Your task to perform on an android device: add a contact in the contacts app Image 0: 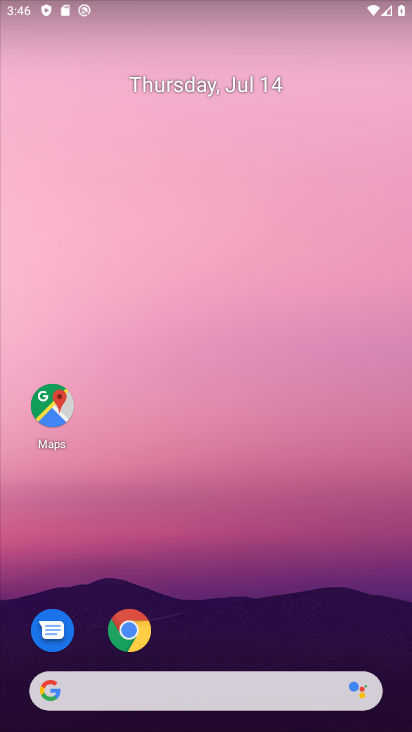
Step 0: drag from (320, 672) to (398, 53)
Your task to perform on an android device: add a contact in the contacts app Image 1: 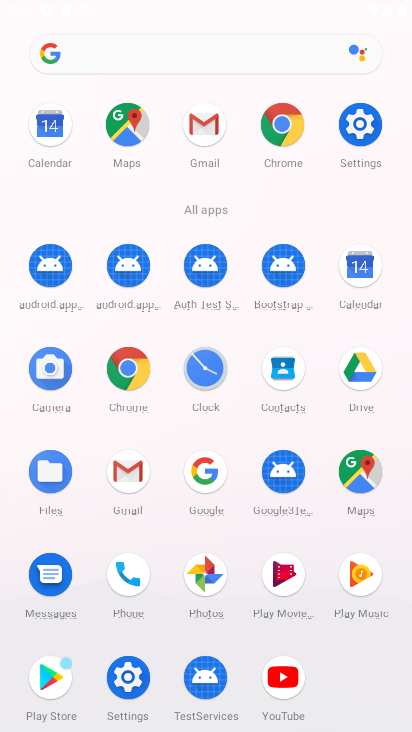
Step 1: click (292, 368)
Your task to perform on an android device: add a contact in the contacts app Image 2: 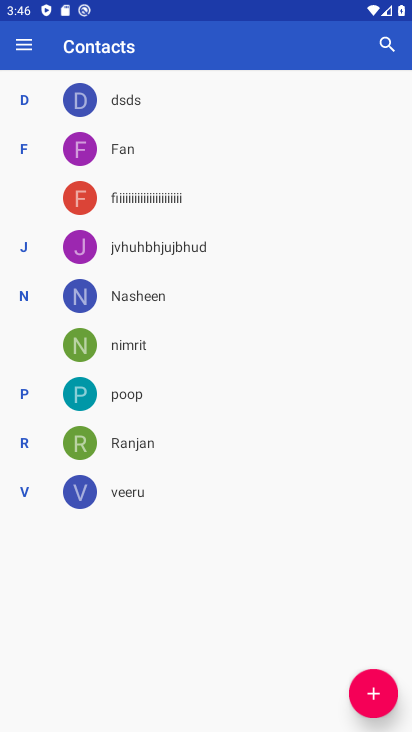
Step 2: click (368, 701)
Your task to perform on an android device: add a contact in the contacts app Image 3: 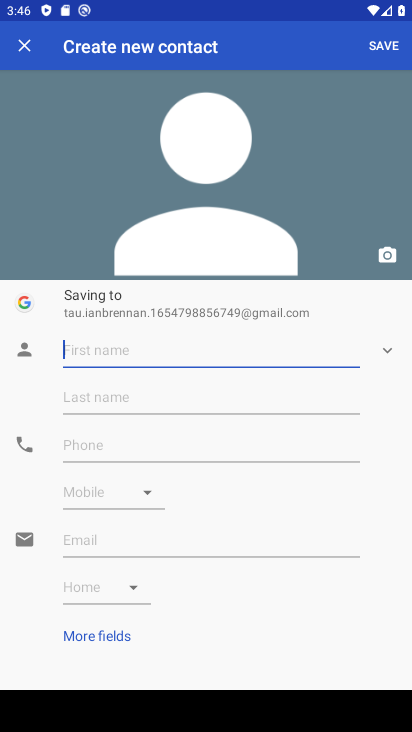
Step 3: type "shikha"
Your task to perform on an android device: add a contact in the contacts app Image 4: 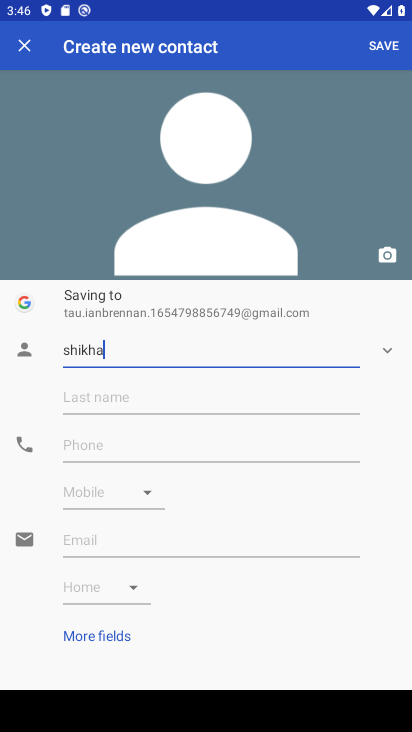
Step 4: click (124, 442)
Your task to perform on an android device: add a contact in the contacts app Image 5: 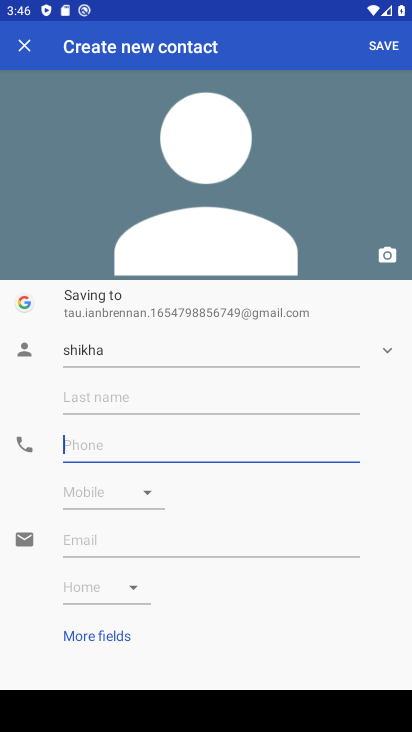
Step 5: type "9876789876"
Your task to perform on an android device: add a contact in the contacts app Image 6: 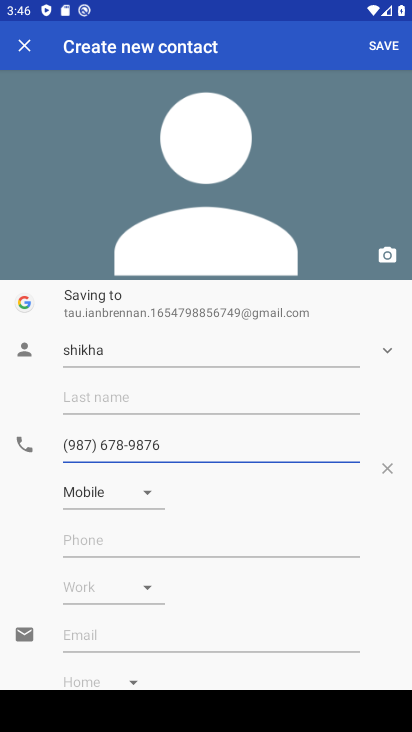
Step 6: click (374, 37)
Your task to perform on an android device: add a contact in the contacts app Image 7: 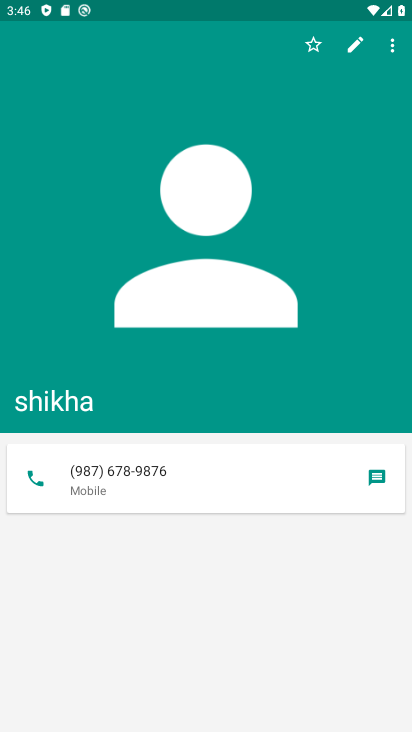
Step 7: task complete